Your task to perform on an android device: set the timer Image 0: 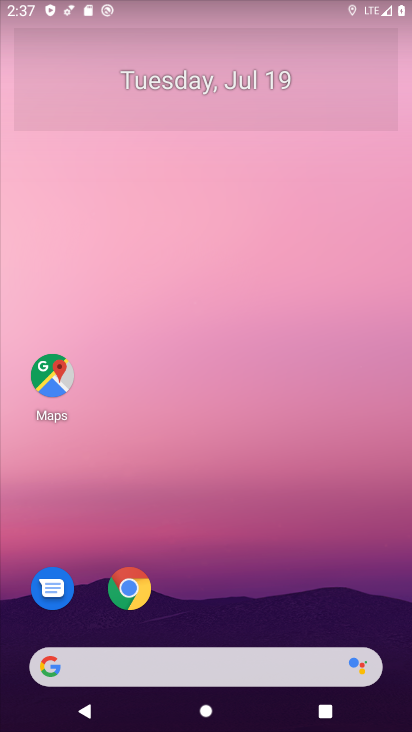
Step 0: drag from (198, 551) to (206, 93)
Your task to perform on an android device: set the timer Image 1: 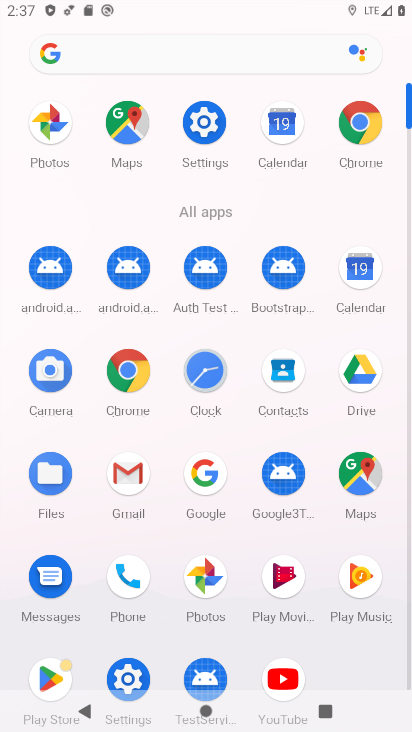
Step 1: click (201, 373)
Your task to perform on an android device: set the timer Image 2: 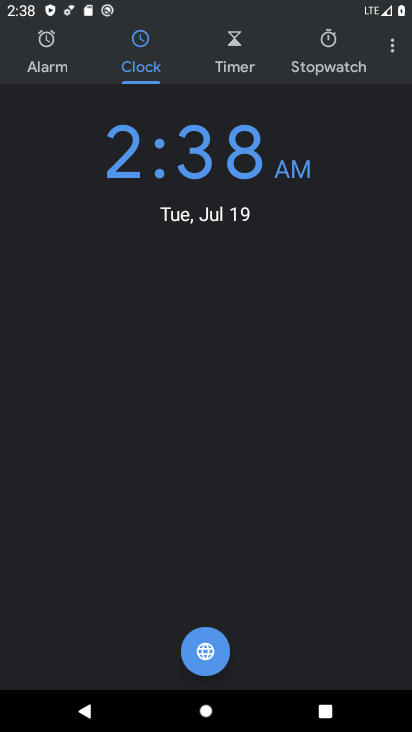
Step 2: click (234, 43)
Your task to perform on an android device: set the timer Image 3: 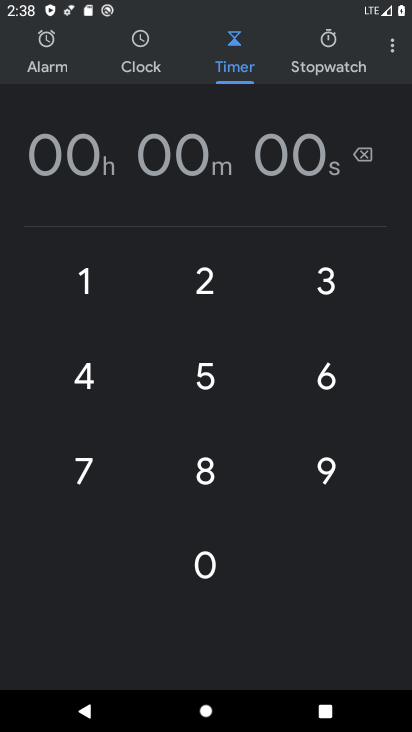
Step 3: click (219, 293)
Your task to perform on an android device: set the timer Image 4: 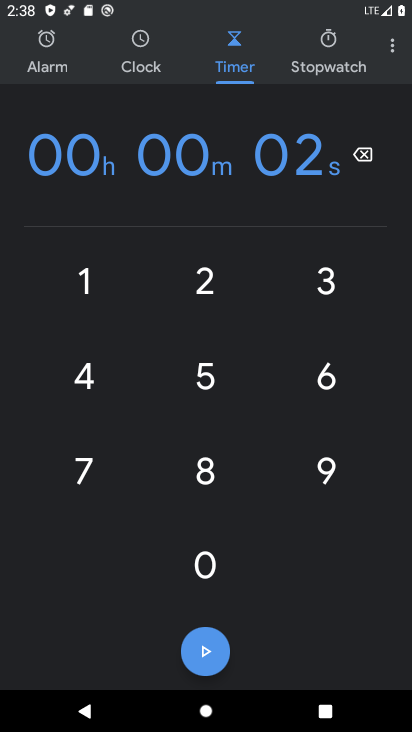
Step 4: click (219, 293)
Your task to perform on an android device: set the timer Image 5: 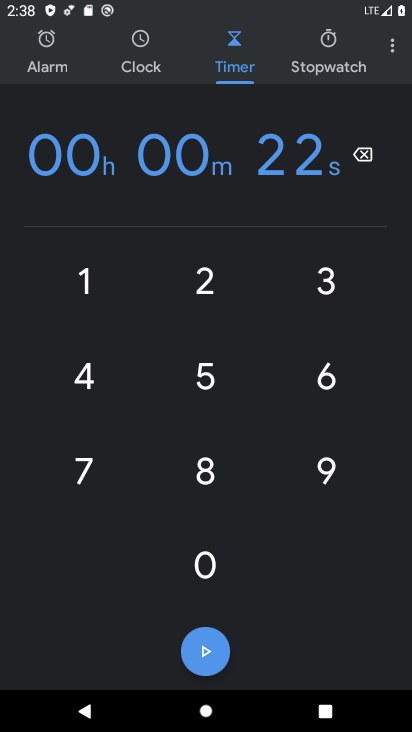
Step 5: task complete